Your task to perform on an android device: Open Google Image 0: 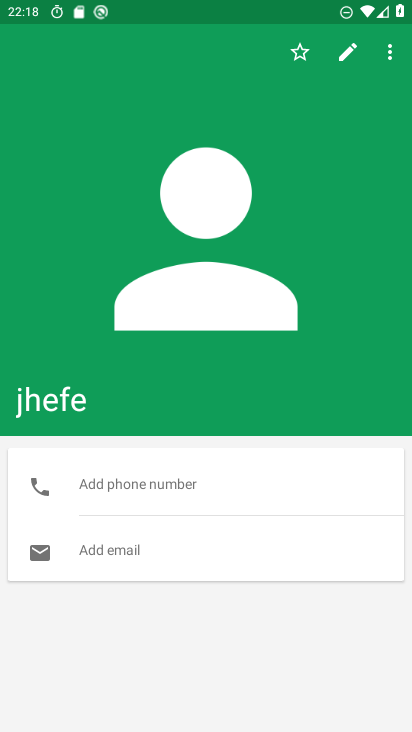
Step 0: press home button
Your task to perform on an android device: Open Google Image 1: 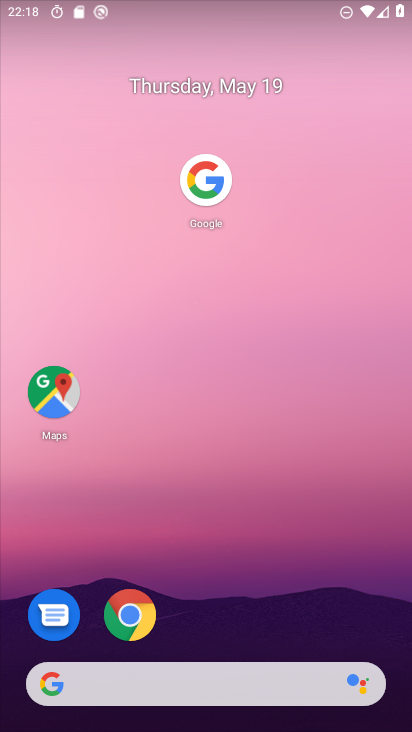
Step 1: click (205, 172)
Your task to perform on an android device: Open Google Image 2: 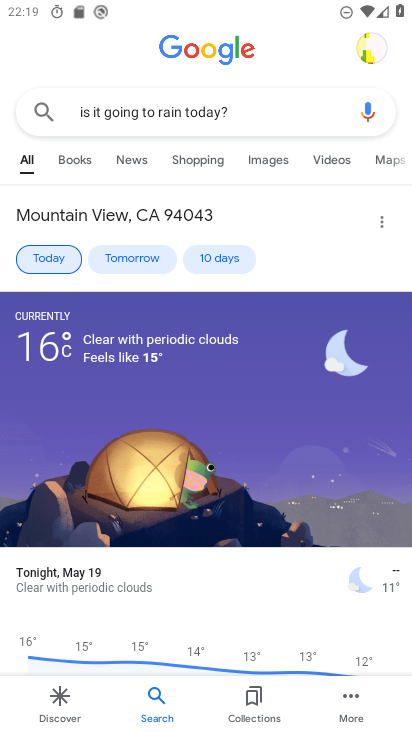
Step 2: task complete